Your task to perform on an android device: empty trash in google photos Image 0: 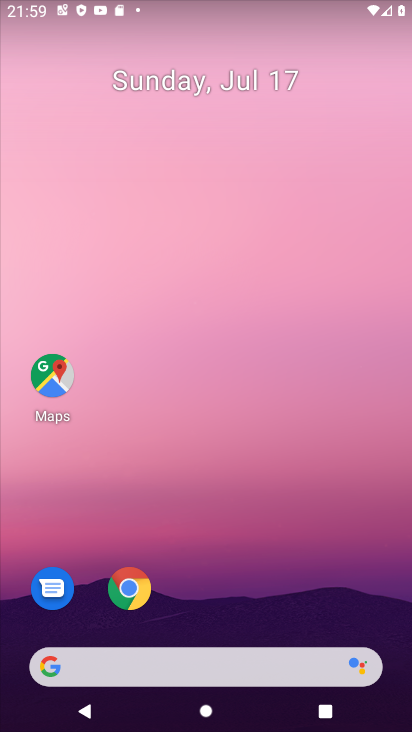
Step 0: drag from (304, 608) to (321, 76)
Your task to perform on an android device: empty trash in google photos Image 1: 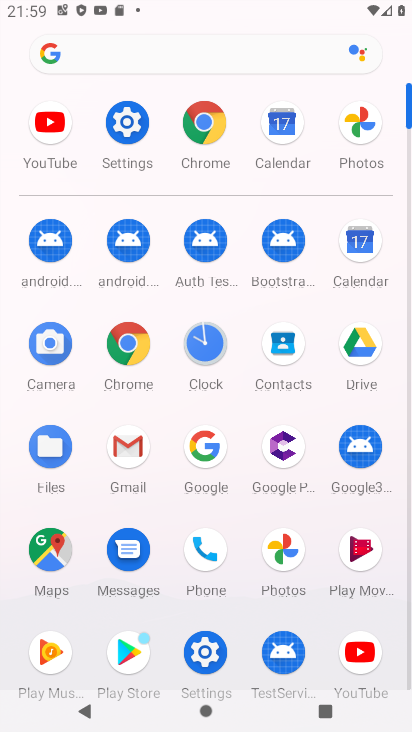
Step 1: click (287, 544)
Your task to perform on an android device: empty trash in google photos Image 2: 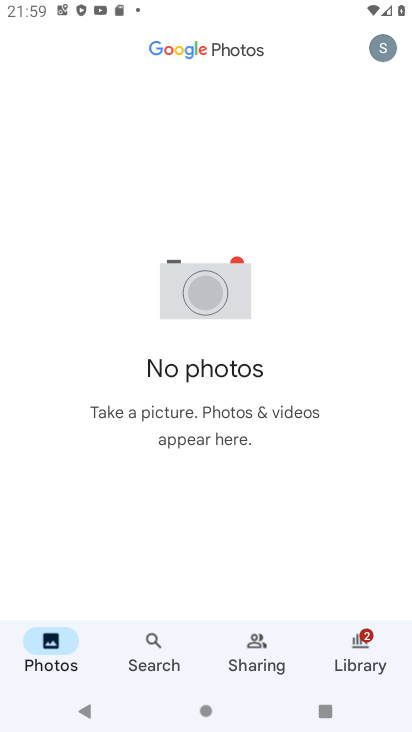
Step 2: click (344, 640)
Your task to perform on an android device: empty trash in google photos Image 3: 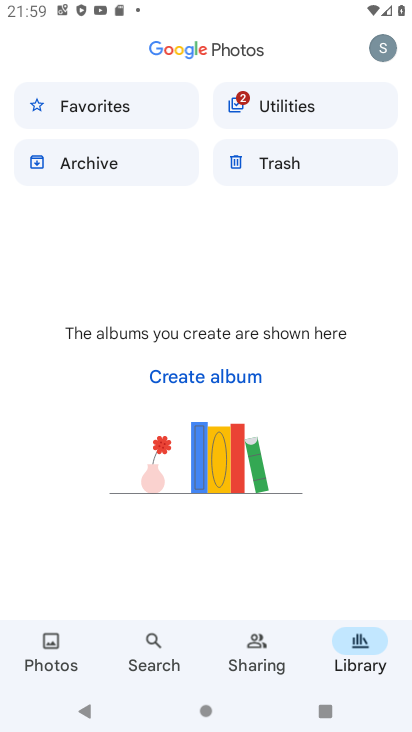
Step 3: click (283, 153)
Your task to perform on an android device: empty trash in google photos Image 4: 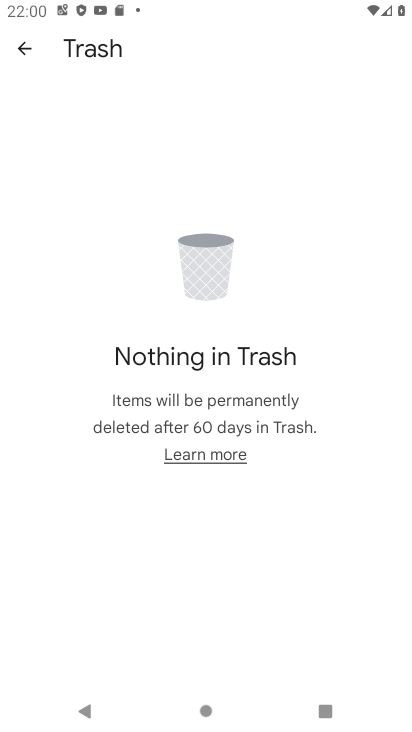
Step 4: task complete